Your task to perform on an android device: turn on translation in the chrome app Image 0: 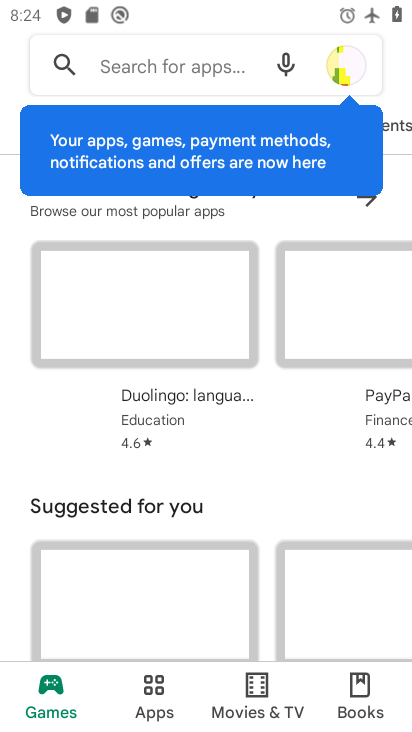
Step 0: press home button
Your task to perform on an android device: turn on translation in the chrome app Image 1: 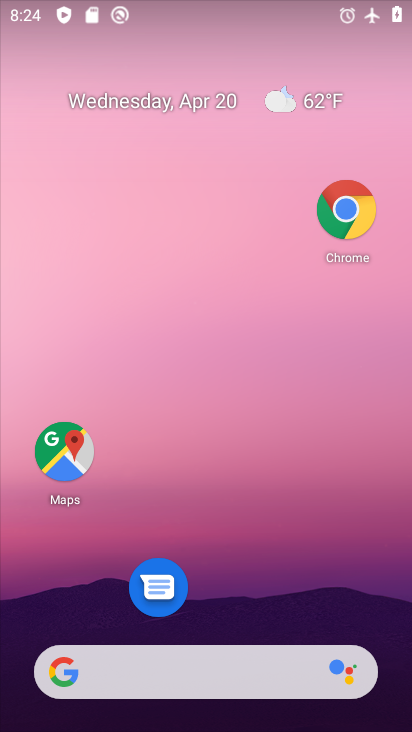
Step 1: click (343, 186)
Your task to perform on an android device: turn on translation in the chrome app Image 2: 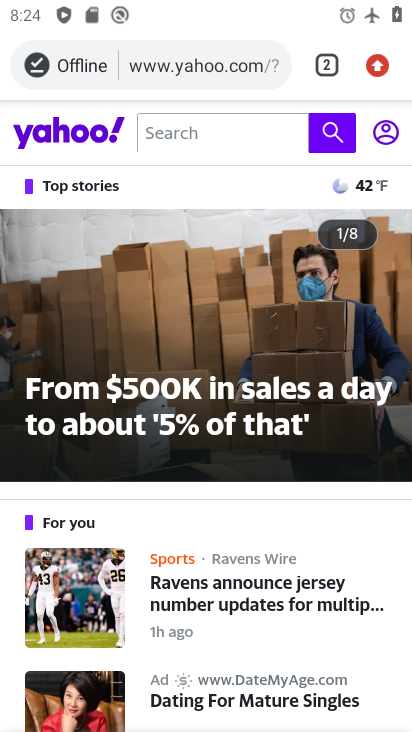
Step 2: click (373, 70)
Your task to perform on an android device: turn on translation in the chrome app Image 3: 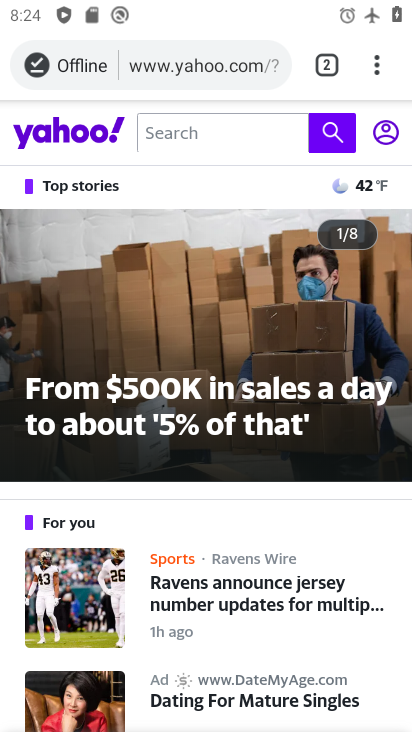
Step 3: click (377, 65)
Your task to perform on an android device: turn on translation in the chrome app Image 4: 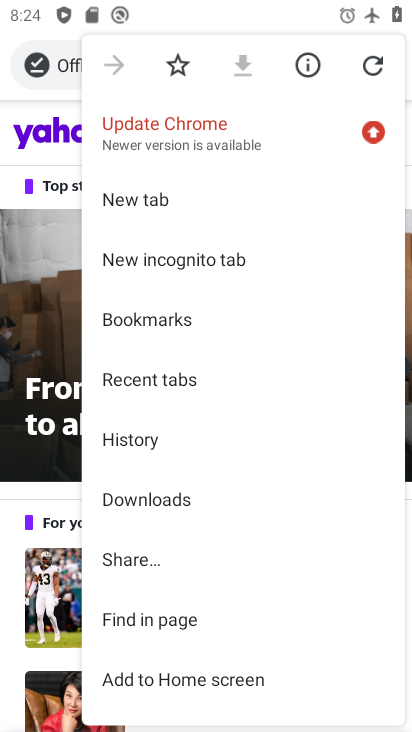
Step 4: drag from (204, 655) to (266, 149)
Your task to perform on an android device: turn on translation in the chrome app Image 5: 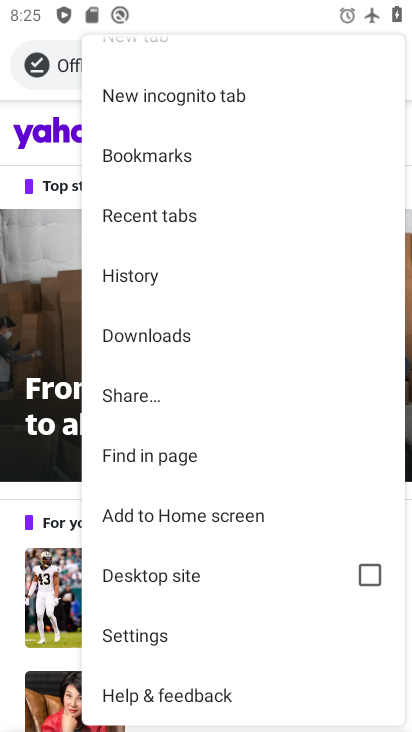
Step 5: click (139, 648)
Your task to perform on an android device: turn on translation in the chrome app Image 6: 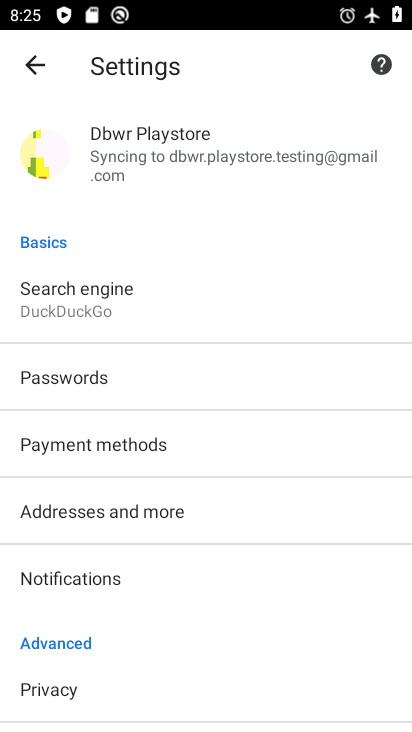
Step 6: drag from (67, 619) to (218, 131)
Your task to perform on an android device: turn on translation in the chrome app Image 7: 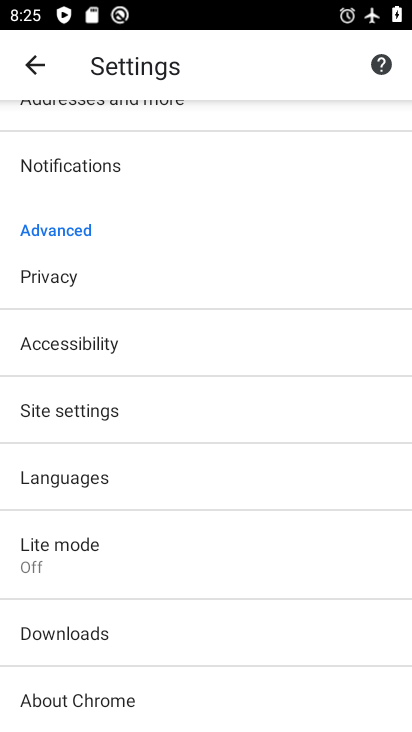
Step 7: click (147, 482)
Your task to perform on an android device: turn on translation in the chrome app Image 8: 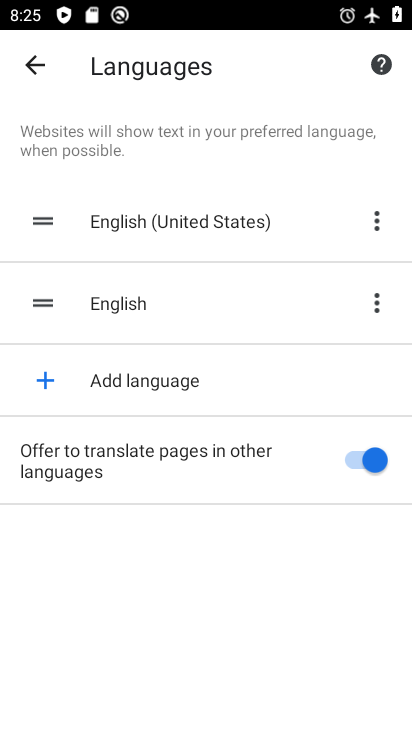
Step 8: task complete